Your task to perform on an android device: Clear the shopping cart on target.com. Search for logitech g910 on target.com, select the first entry, add it to the cart, then select checkout. Image 0: 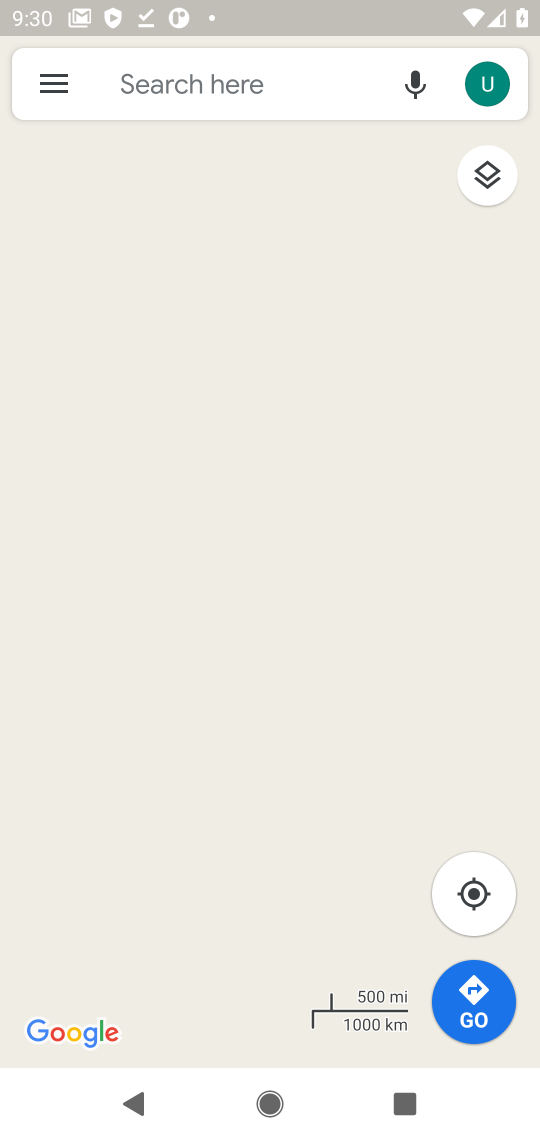
Step 0: press home button
Your task to perform on an android device: Clear the shopping cart on target.com. Search for logitech g910 on target.com, select the first entry, add it to the cart, then select checkout. Image 1: 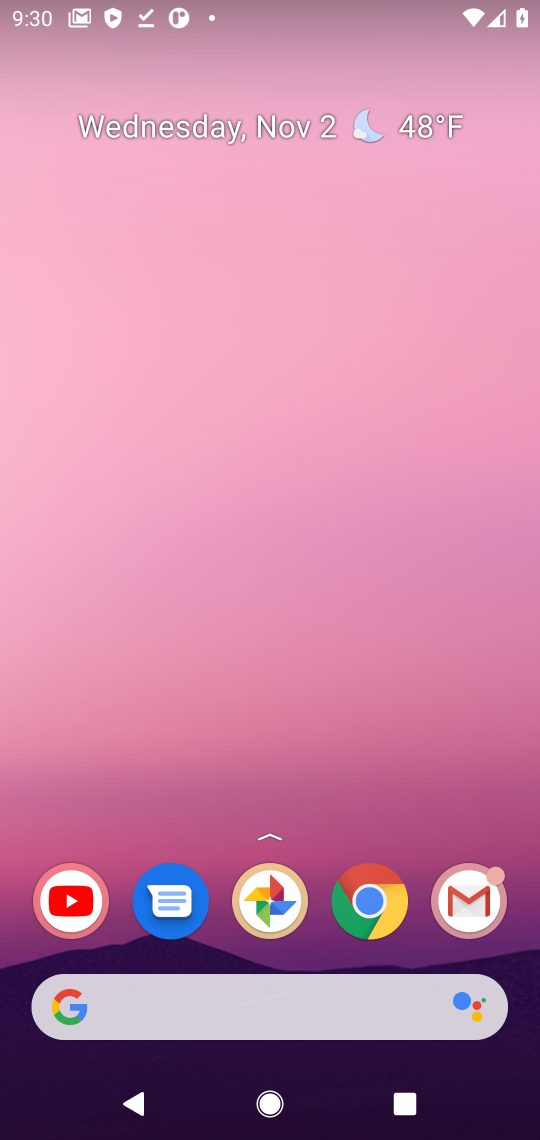
Step 1: click (375, 895)
Your task to perform on an android device: Clear the shopping cart on target.com. Search for logitech g910 on target.com, select the first entry, add it to the cart, then select checkout. Image 2: 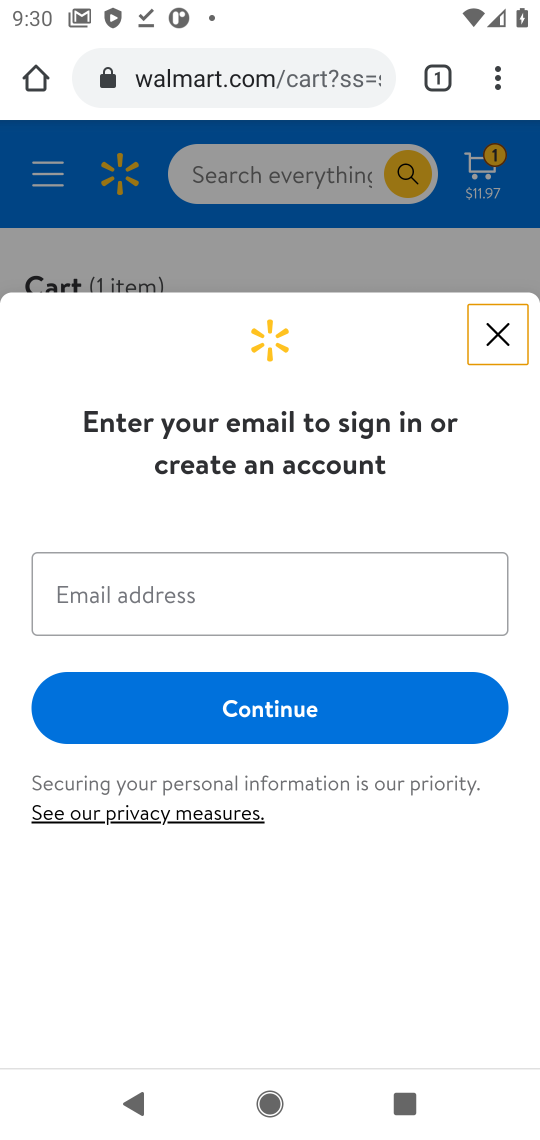
Step 2: click (282, 92)
Your task to perform on an android device: Clear the shopping cart on target.com. Search for logitech g910 on target.com, select the first entry, add it to the cart, then select checkout. Image 3: 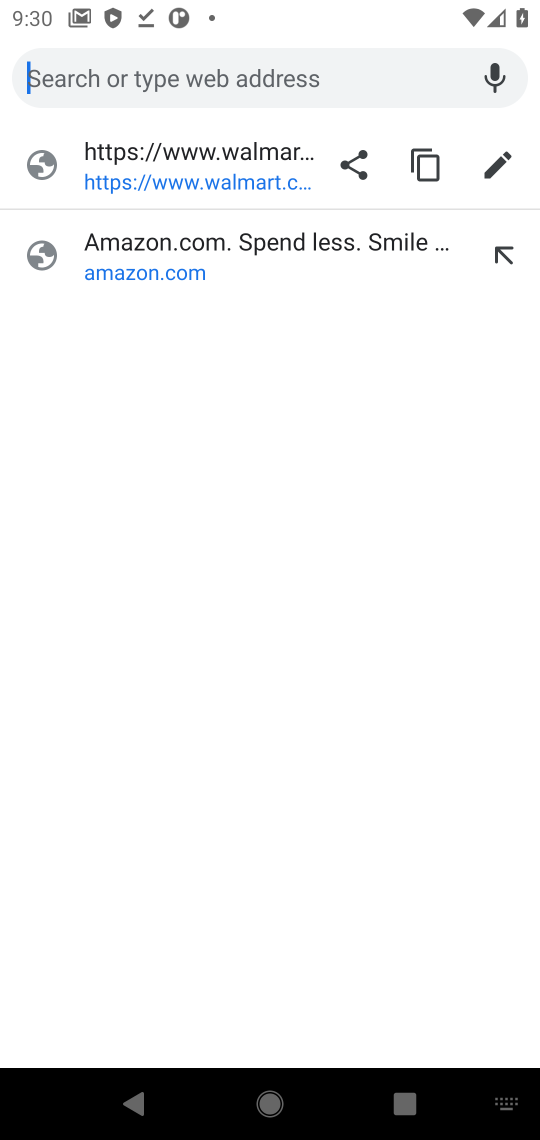
Step 3: type "target.com"
Your task to perform on an android device: Clear the shopping cart on target.com. Search for logitech g910 on target.com, select the first entry, add it to the cart, then select checkout. Image 4: 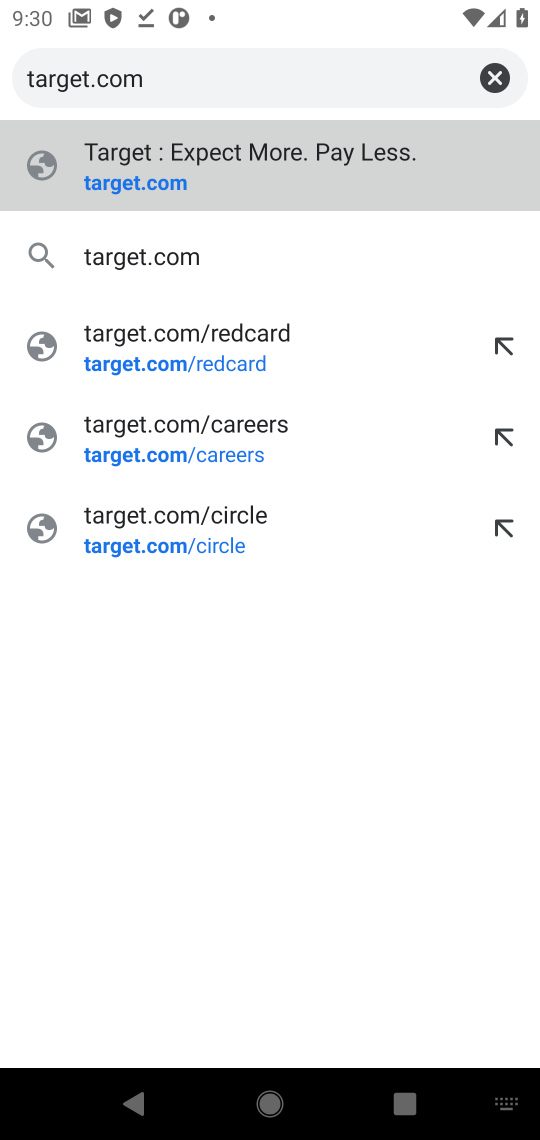
Step 4: click (374, 160)
Your task to perform on an android device: Clear the shopping cart on target.com. Search for logitech g910 on target.com, select the first entry, add it to the cart, then select checkout. Image 5: 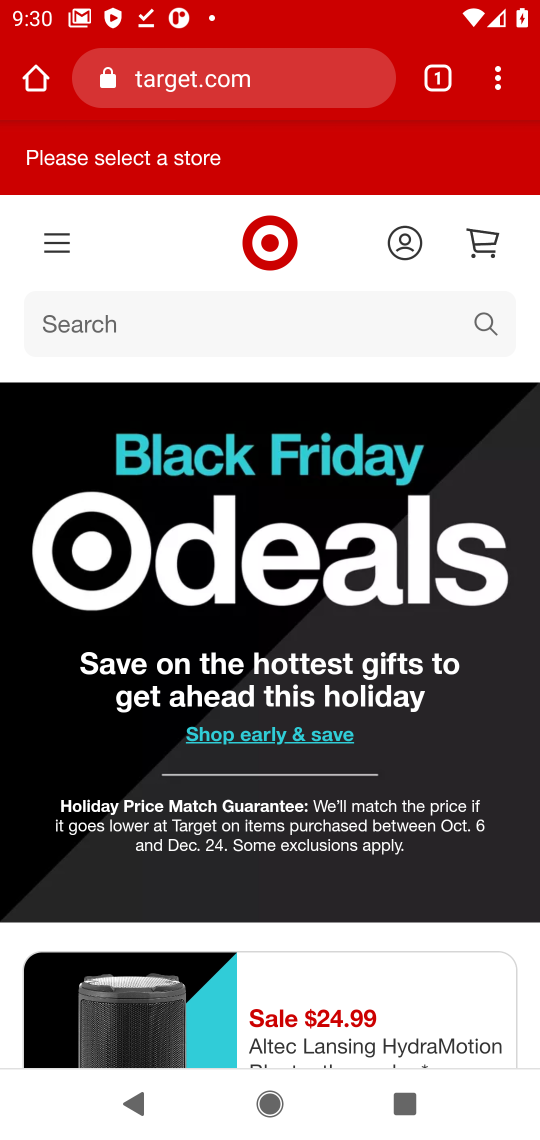
Step 5: click (166, 321)
Your task to perform on an android device: Clear the shopping cart on target.com. Search for logitech g910 on target.com, select the first entry, add it to the cart, then select checkout. Image 6: 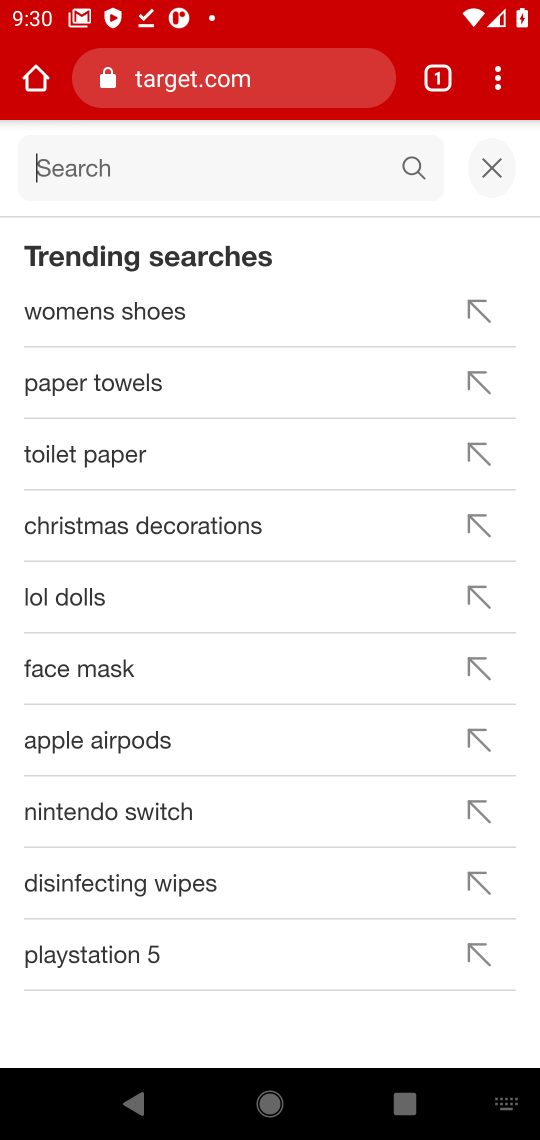
Step 6: click (488, 168)
Your task to perform on an android device: Clear the shopping cart on target.com. Search for logitech g910 on target.com, select the first entry, add it to the cart, then select checkout. Image 7: 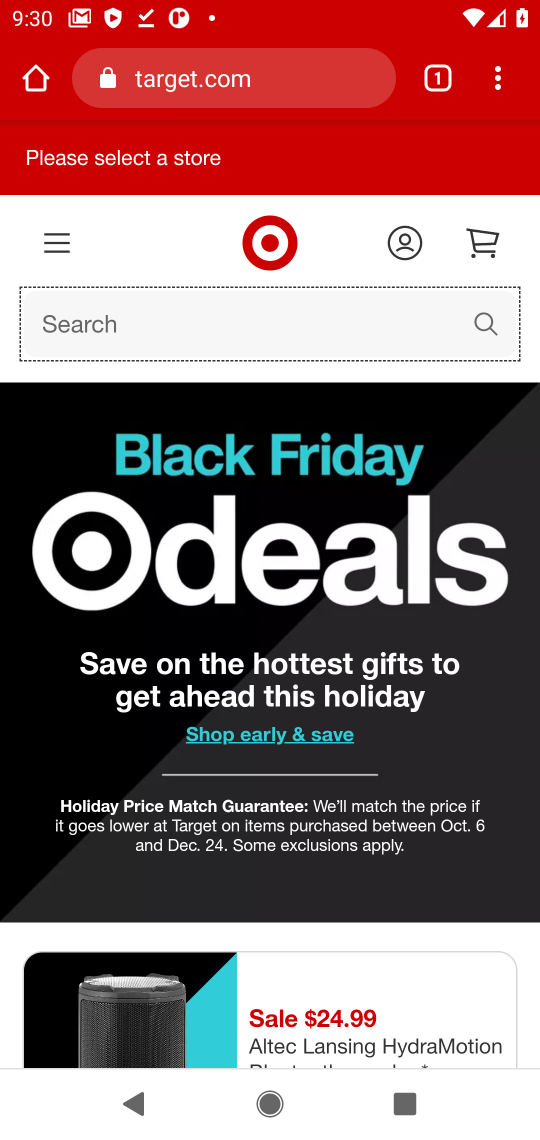
Step 7: click (486, 251)
Your task to perform on an android device: Clear the shopping cart on target.com. Search for logitech g910 on target.com, select the first entry, add it to the cart, then select checkout. Image 8: 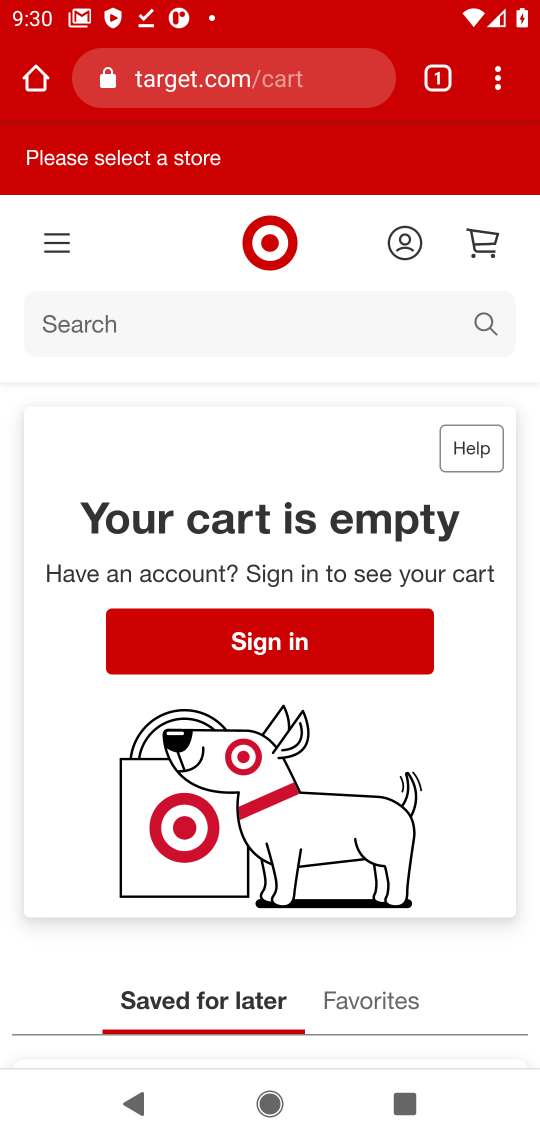
Step 8: click (260, 342)
Your task to perform on an android device: Clear the shopping cart on target.com. Search for logitech g910 on target.com, select the first entry, add it to the cart, then select checkout. Image 9: 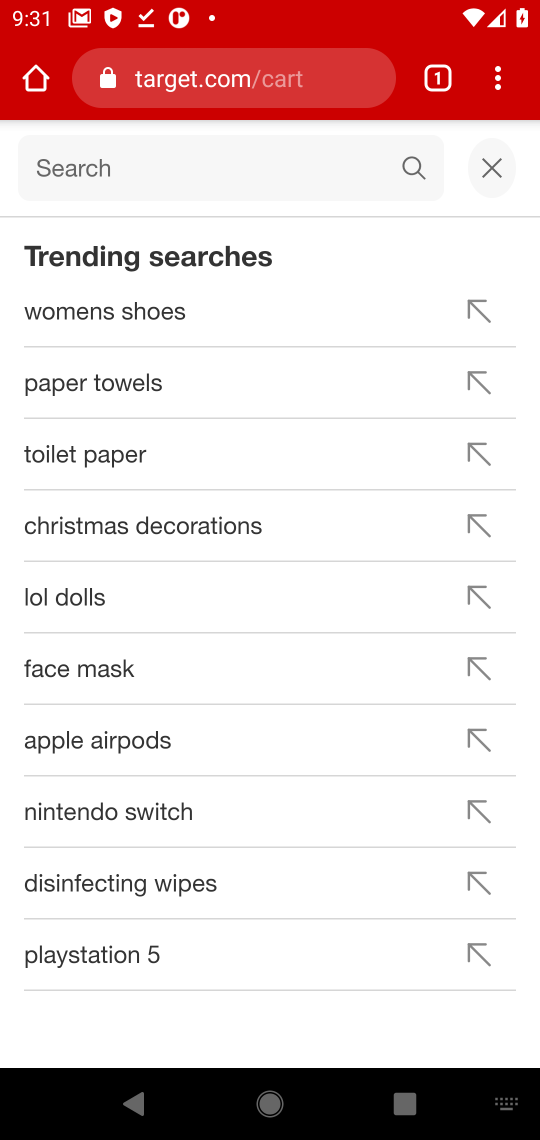
Step 9: type "logitech g910"
Your task to perform on an android device: Clear the shopping cart on target.com. Search for logitech g910 on target.com, select the first entry, add it to the cart, then select checkout. Image 10: 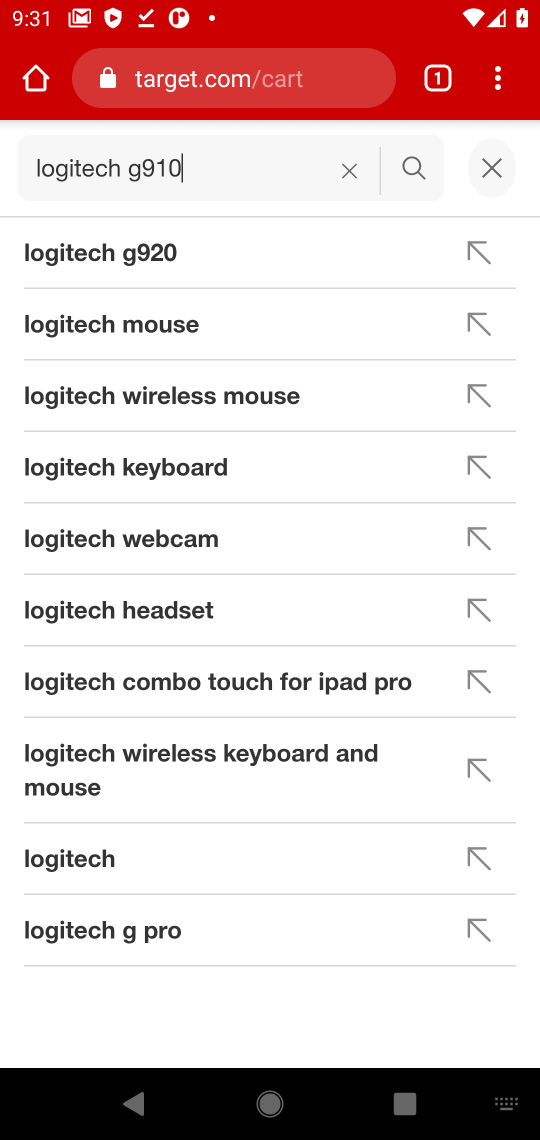
Step 10: press enter
Your task to perform on an android device: Clear the shopping cart on target.com. Search for logitech g910 on target.com, select the first entry, add it to the cart, then select checkout. Image 11: 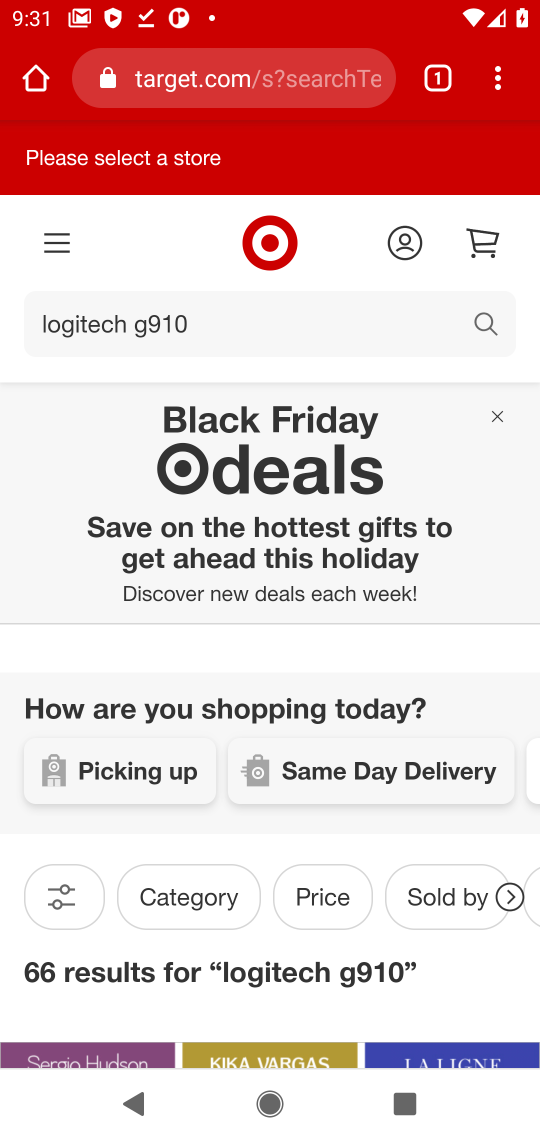
Step 11: drag from (326, 660) to (305, 252)
Your task to perform on an android device: Clear the shopping cart on target.com. Search for logitech g910 on target.com, select the first entry, add it to the cart, then select checkout. Image 12: 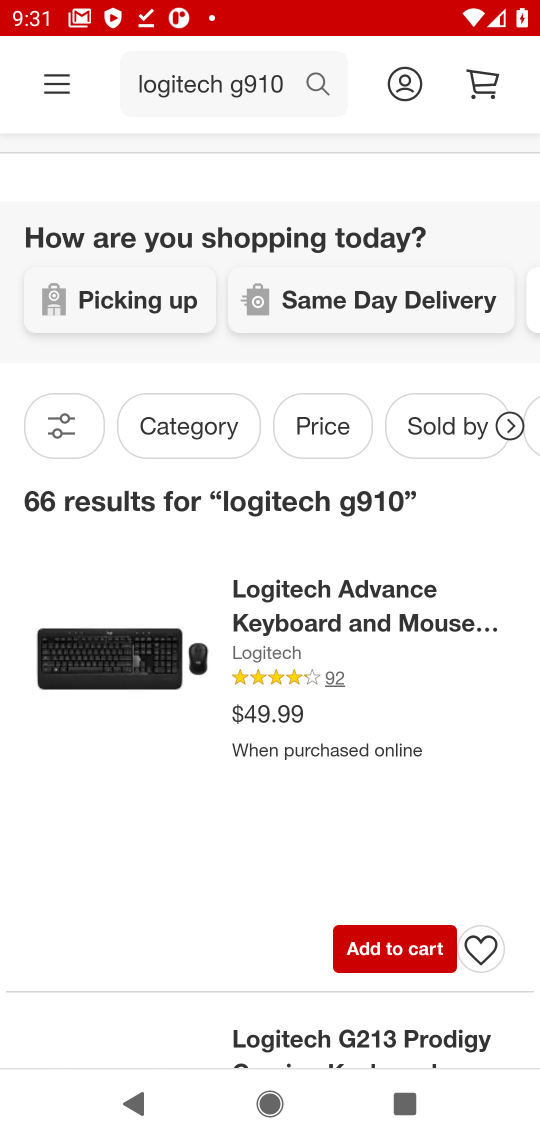
Step 12: click (104, 643)
Your task to perform on an android device: Clear the shopping cart on target.com. Search for logitech g910 on target.com, select the first entry, add it to the cart, then select checkout. Image 13: 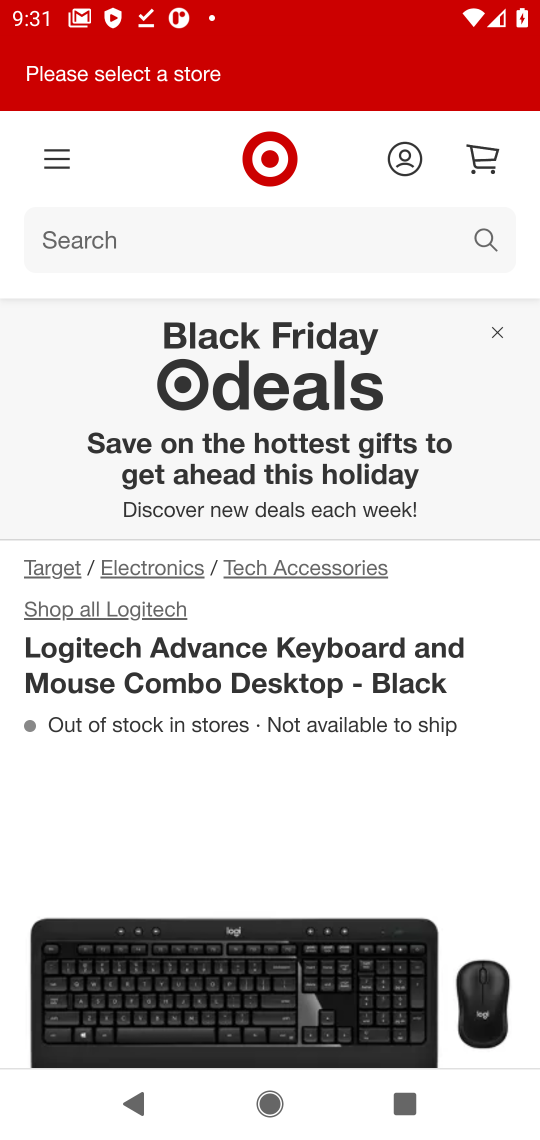
Step 13: drag from (477, 770) to (477, 330)
Your task to perform on an android device: Clear the shopping cart on target.com. Search for logitech g910 on target.com, select the first entry, add it to the cart, then select checkout. Image 14: 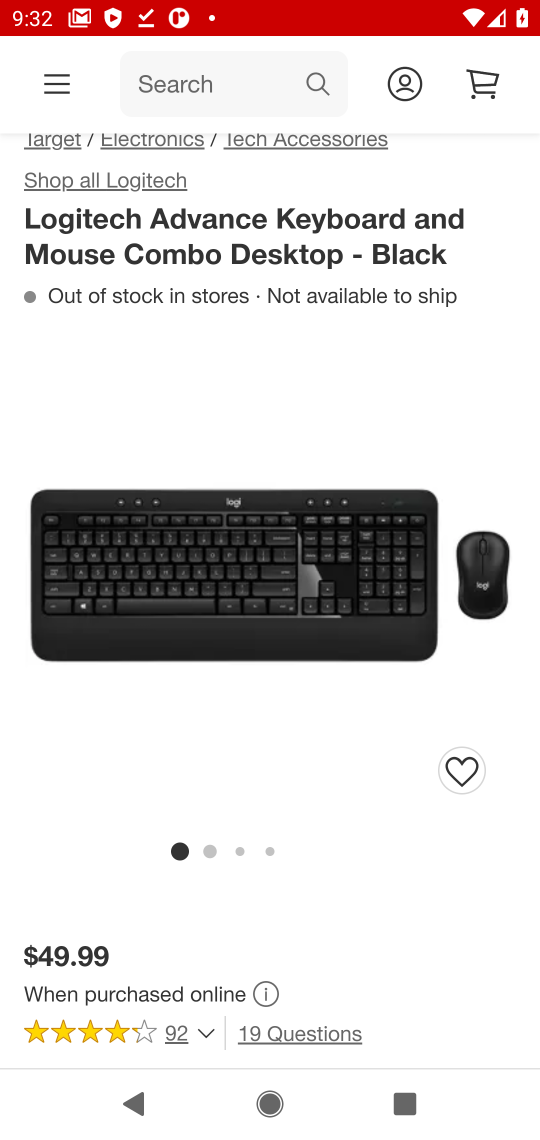
Step 14: drag from (374, 925) to (339, 435)
Your task to perform on an android device: Clear the shopping cart on target.com. Search for logitech g910 on target.com, select the first entry, add it to the cart, then select checkout. Image 15: 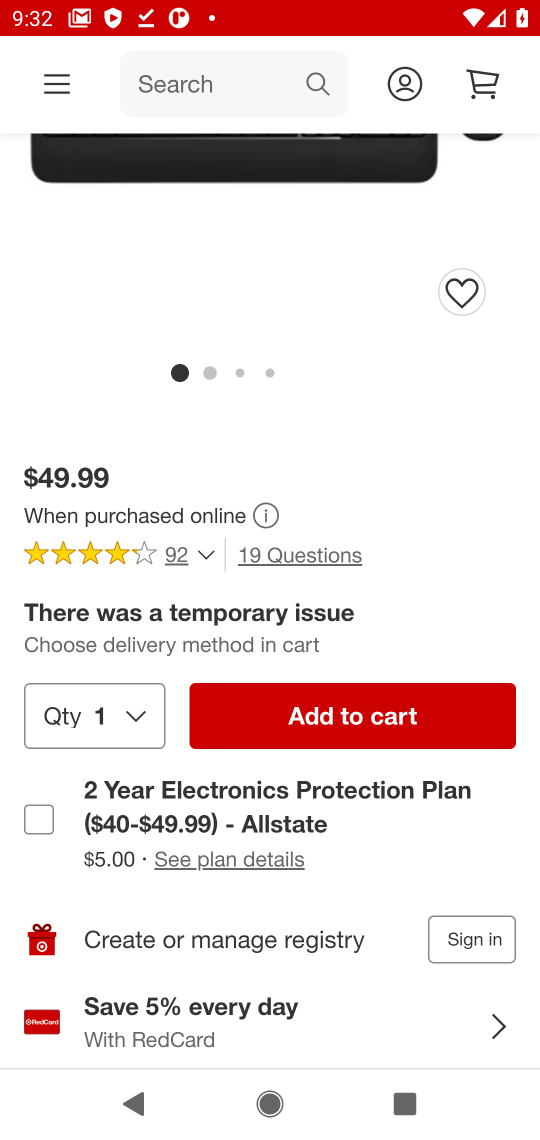
Step 15: click (419, 724)
Your task to perform on an android device: Clear the shopping cart on target.com. Search for logitech g910 on target.com, select the first entry, add it to the cart, then select checkout. Image 16: 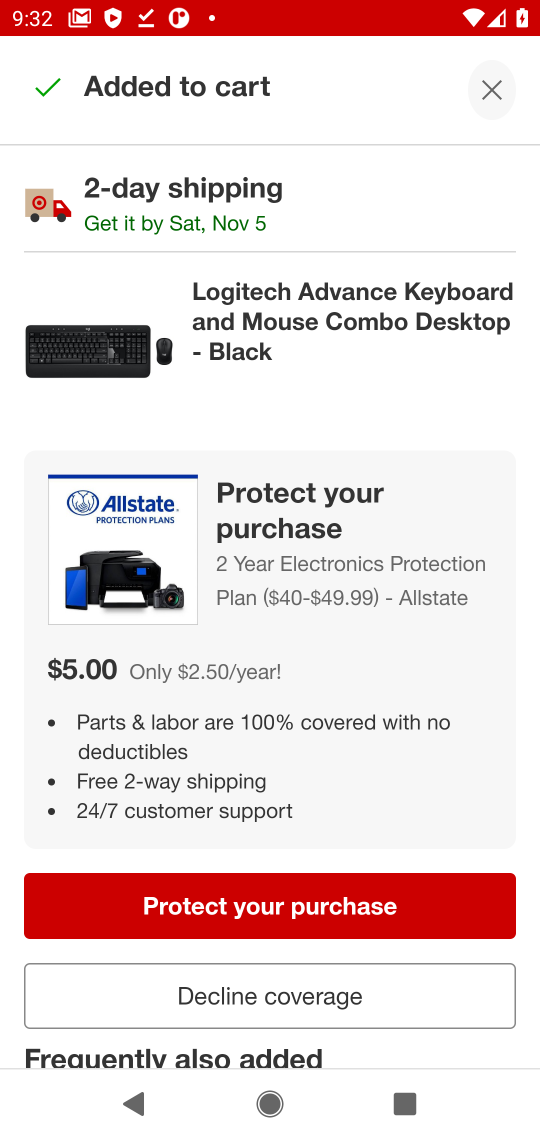
Step 16: click (270, 999)
Your task to perform on an android device: Clear the shopping cart on target.com. Search for logitech g910 on target.com, select the first entry, add it to the cart, then select checkout. Image 17: 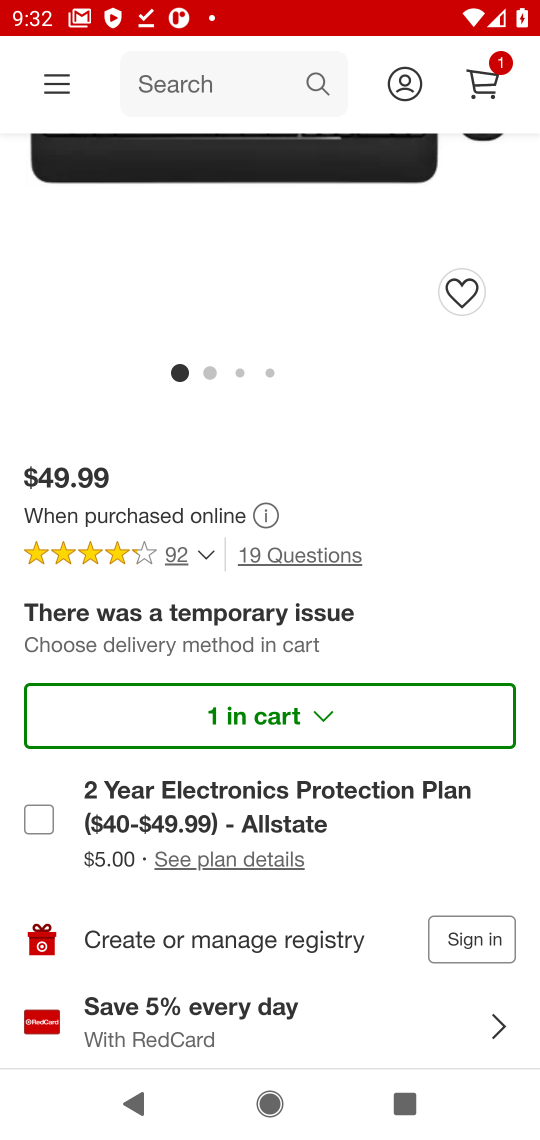
Step 17: click (476, 81)
Your task to perform on an android device: Clear the shopping cart on target.com. Search for logitech g910 on target.com, select the first entry, add it to the cart, then select checkout. Image 18: 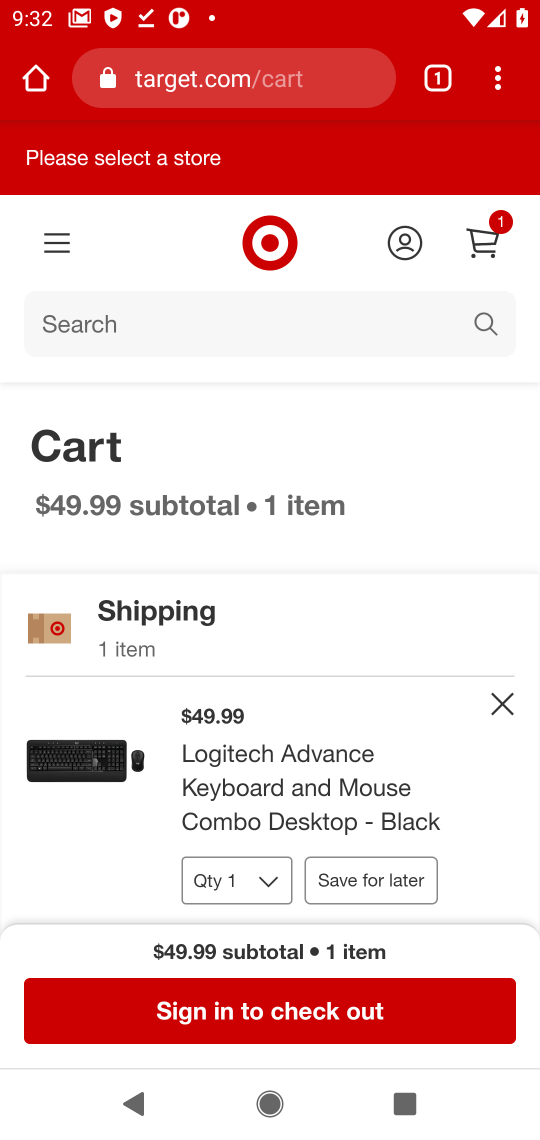
Step 18: click (342, 1016)
Your task to perform on an android device: Clear the shopping cart on target.com. Search for logitech g910 on target.com, select the first entry, add it to the cart, then select checkout. Image 19: 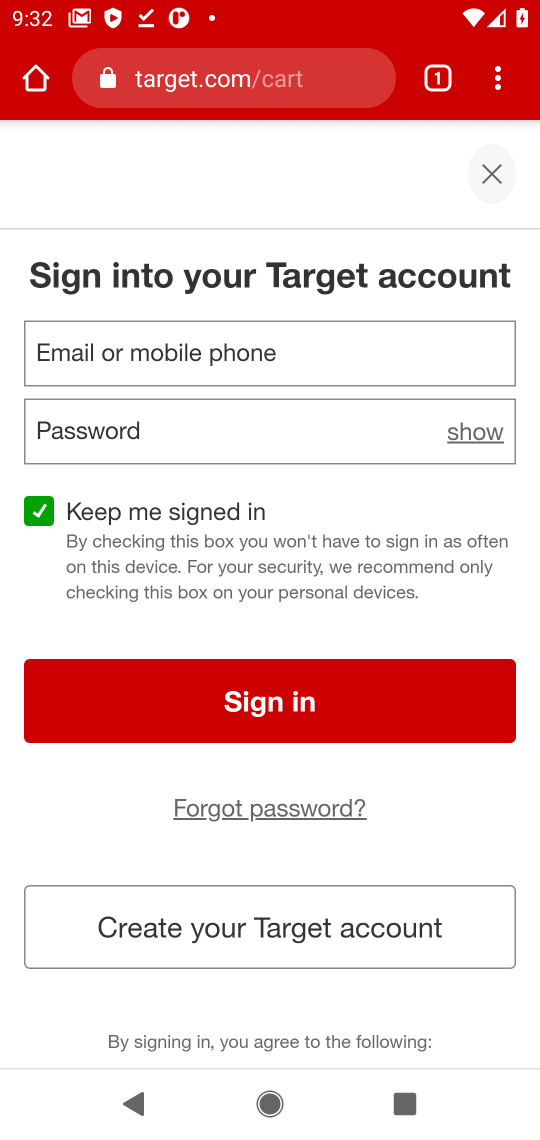
Step 19: task complete